Your task to perform on an android device: Open CNN.com Image 0: 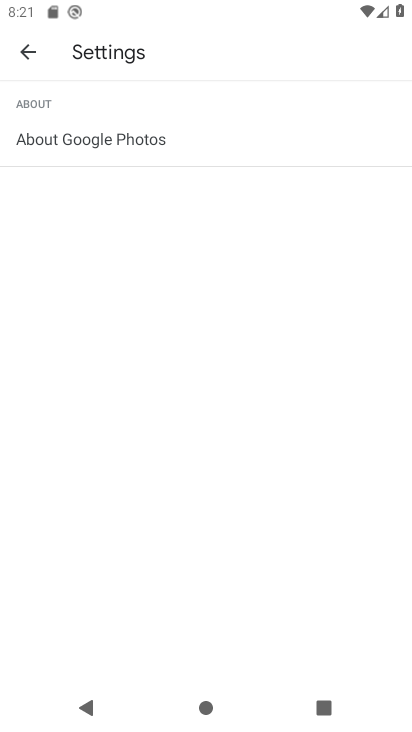
Step 0: press home button
Your task to perform on an android device: Open CNN.com Image 1: 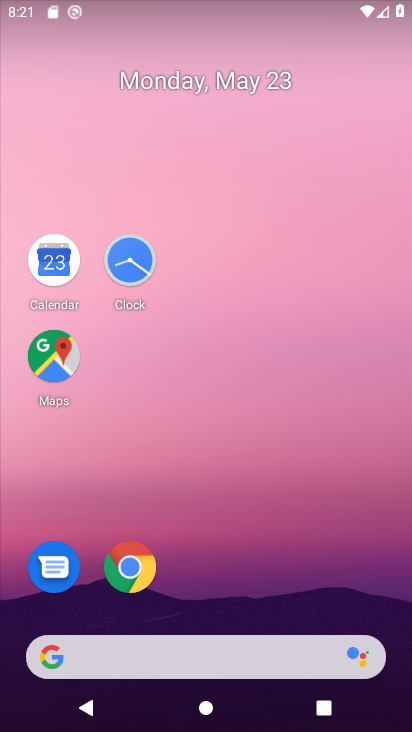
Step 1: click (125, 584)
Your task to perform on an android device: Open CNN.com Image 2: 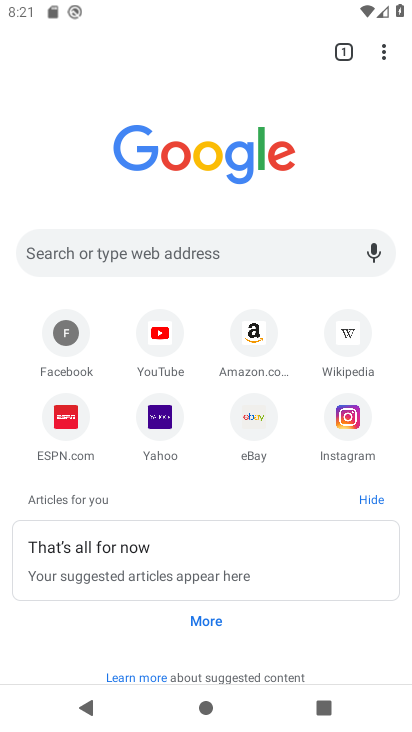
Step 2: click (201, 237)
Your task to perform on an android device: Open CNN.com Image 3: 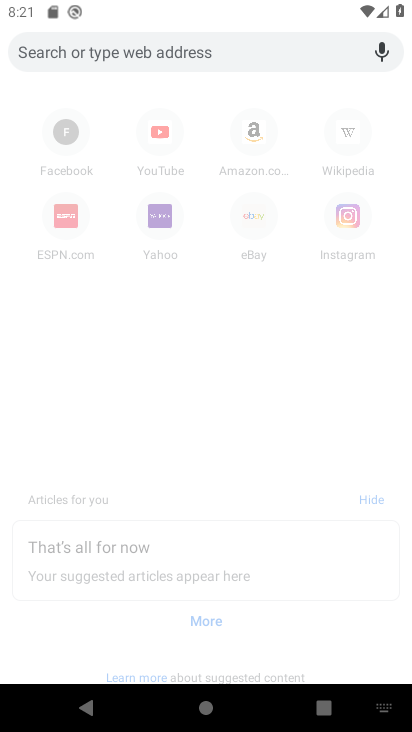
Step 3: type "cnn"
Your task to perform on an android device: Open CNN.com Image 4: 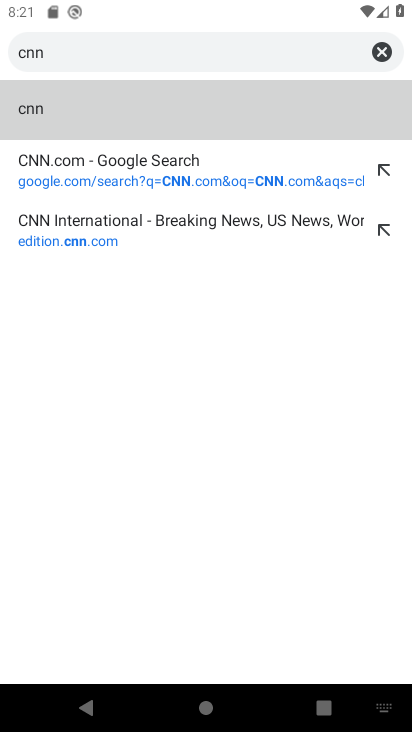
Step 4: click (144, 188)
Your task to perform on an android device: Open CNN.com Image 5: 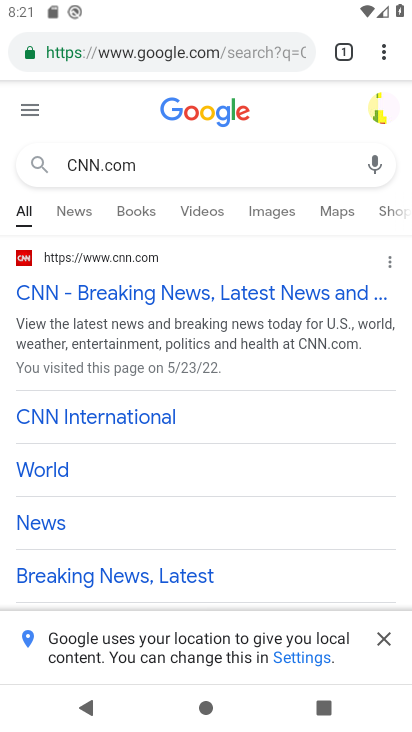
Step 5: click (134, 295)
Your task to perform on an android device: Open CNN.com Image 6: 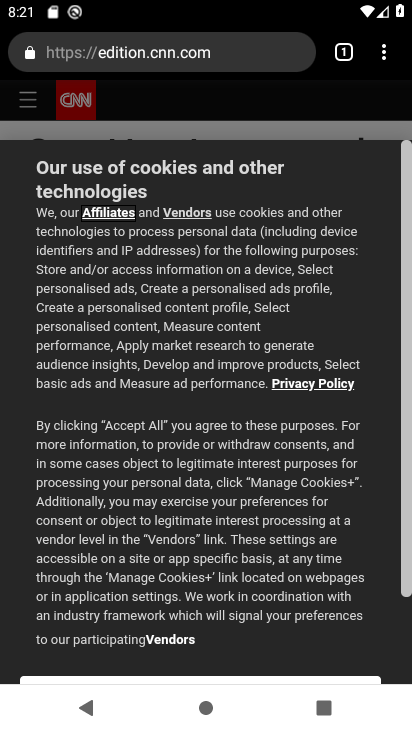
Step 6: task complete